Your task to perform on an android device: Go to ESPN.com Image 0: 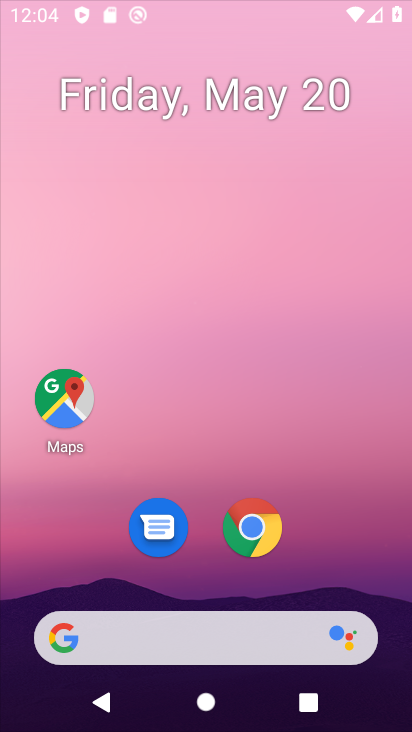
Step 0: press home button
Your task to perform on an android device: Go to ESPN.com Image 1: 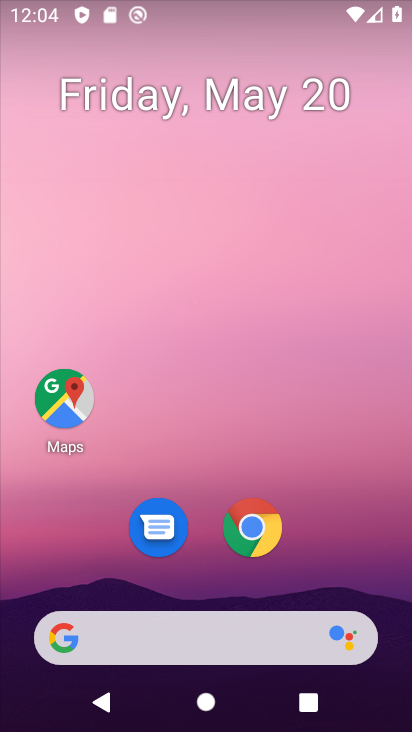
Step 1: click (249, 529)
Your task to perform on an android device: Go to ESPN.com Image 2: 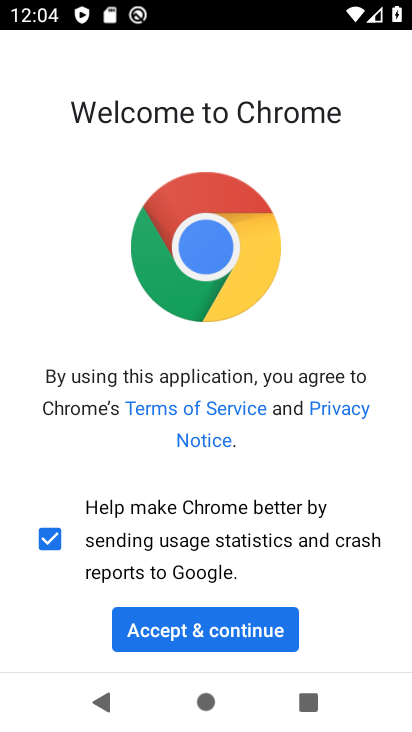
Step 2: click (246, 631)
Your task to perform on an android device: Go to ESPN.com Image 3: 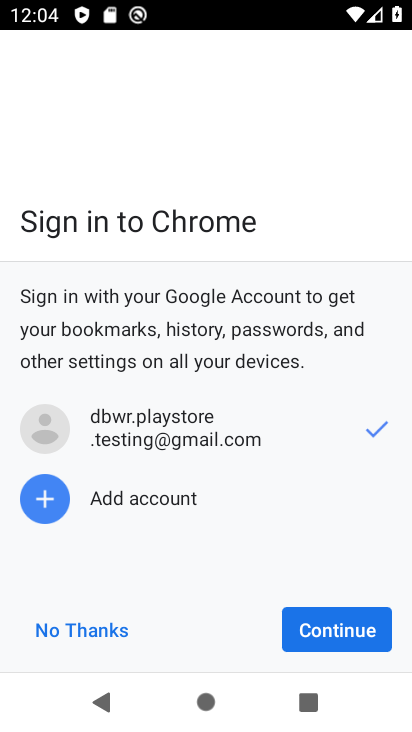
Step 3: click (355, 636)
Your task to perform on an android device: Go to ESPN.com Image 4: 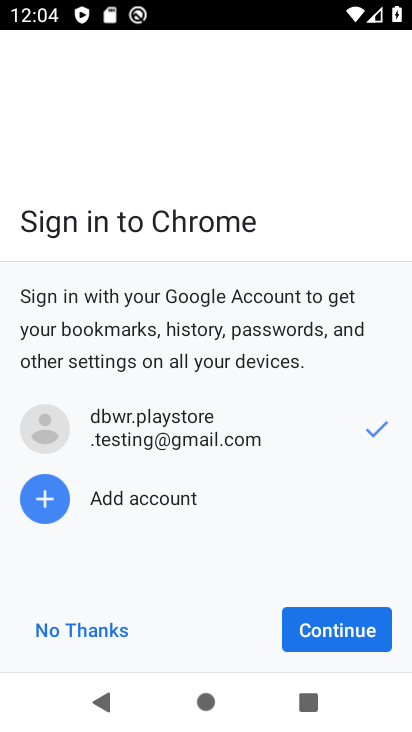
Step 4: click (355, 636)
Your task to perform on an android device: Go to ESPN.com Image 5: 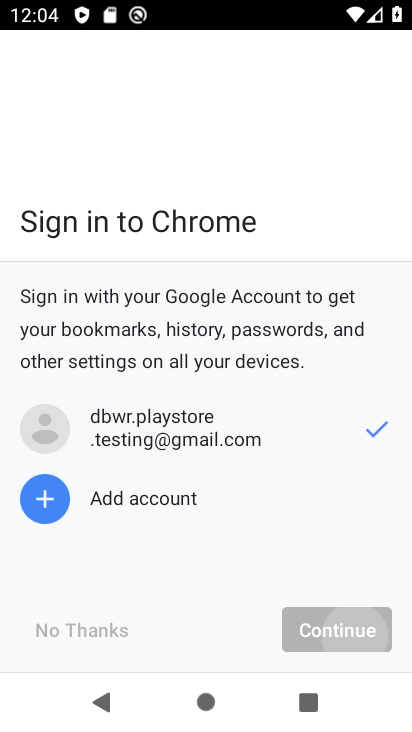
Step 5: click (355, 636)
Your task to perform on an android device: Go to ESPN.com Image 6: 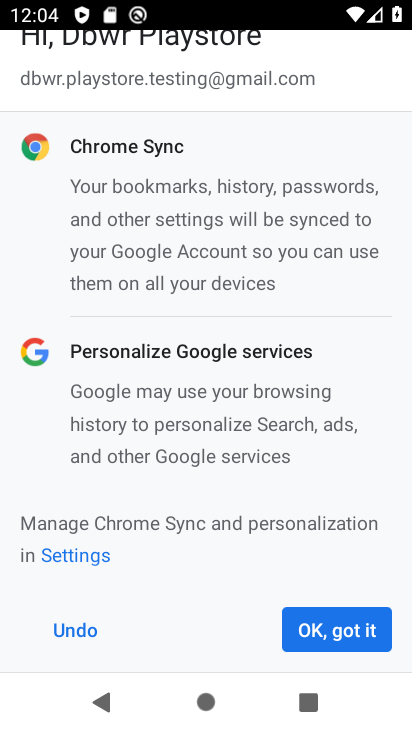
Step 6: click (355, 636)
Your task to perform on an android device: Go to ESPN.com Image 7: 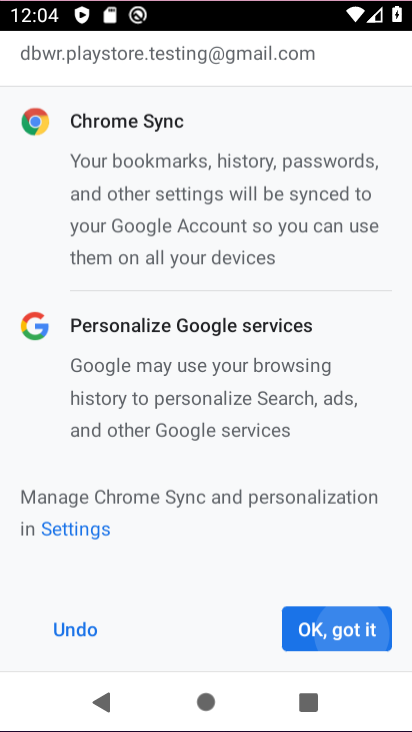
Step 7: click (355, 636)
Your task to perform on an android device: Go to ESPN.com Image 8: 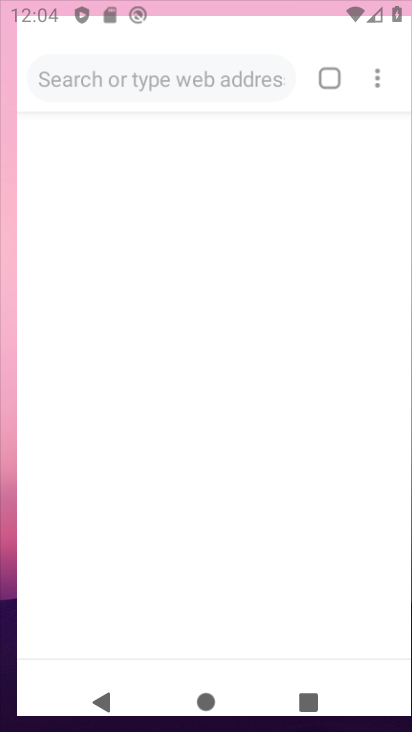
Step 8: click (355, 636)
Your task to perform on an android device: Go to ESPN.com Image 9: 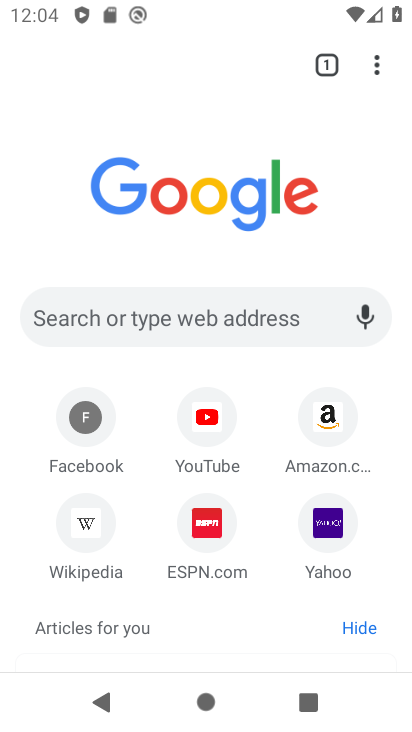
Step 9: click (222, 529)
Your task to perform on an android device: Go to ESPN.com Image 10: 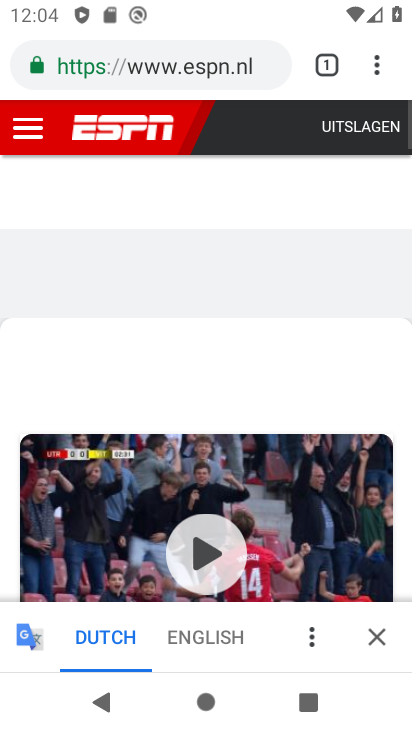
Step 10: task complete